Your task to perform on an android device: delete browsing data in the chrome app Image 0: 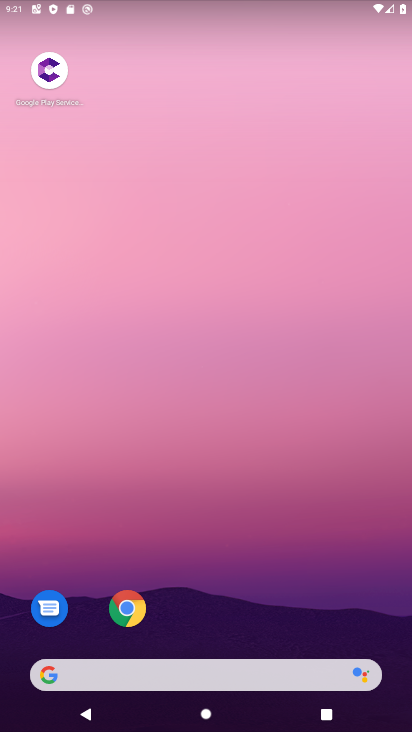
Step 0: click (131, 605)
Your task to perform on an android device: delete browsing data in the chrome app Image 1: 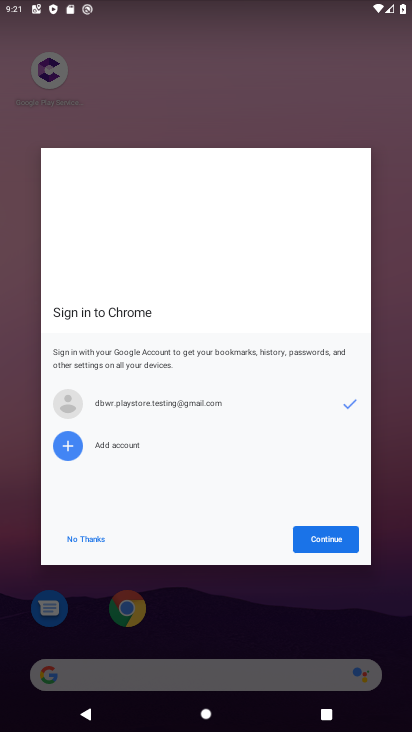
Step 1: click (325, 542)
Your task to perform on an android device: delete browsing data in the chrome app Image 2: 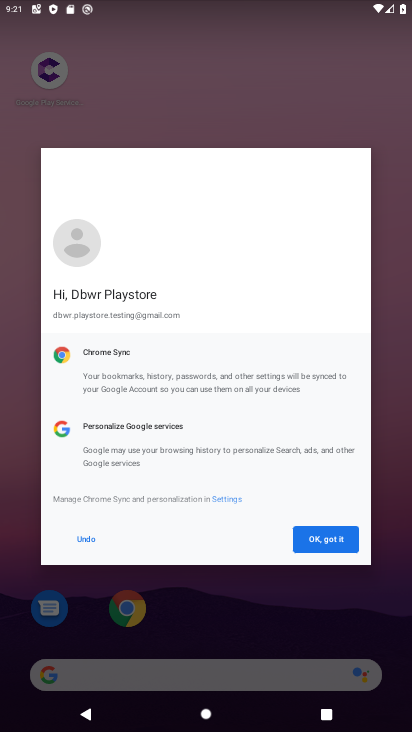
Step 2: click (325, 541)
Your task to perform on an android device: delete browsing data in the chrome app Image 3: 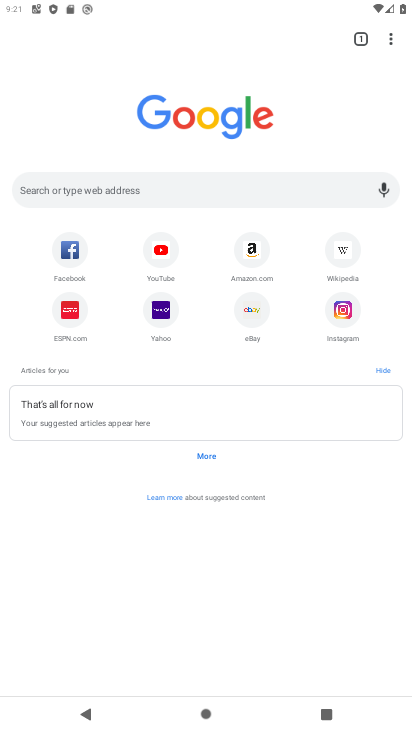
Step 3: click (154, 191)
Your task to perform on an android device: delete browsing data in the chrome app Image 4: 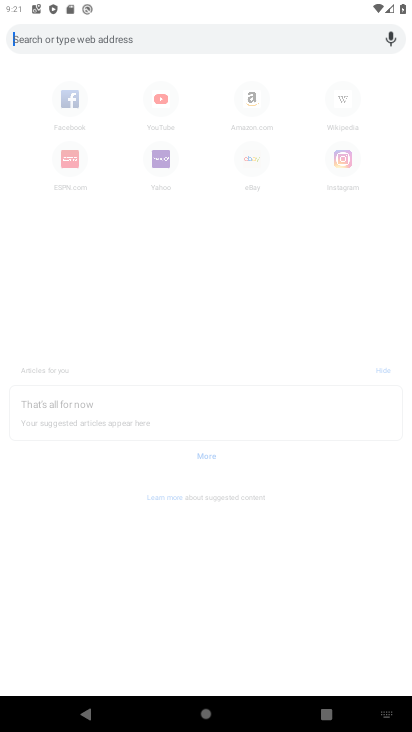
Step 4: click (122, 37)
Your task to perform on an android device: delete browsing data in the chrome app Image 5: 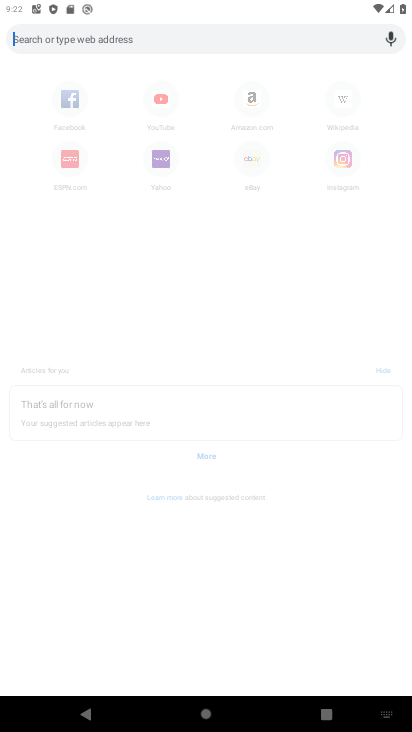
Step 5: press back button
Your task to perform on an android device: delete browsing data in the chrome app Image 6: 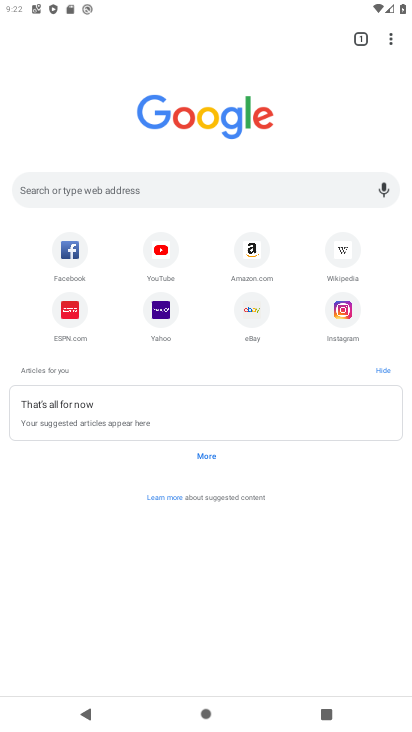
Step 6: click (389, 36)
Your task to perform on an android device: delete browsing data in the chrome app Image 7: 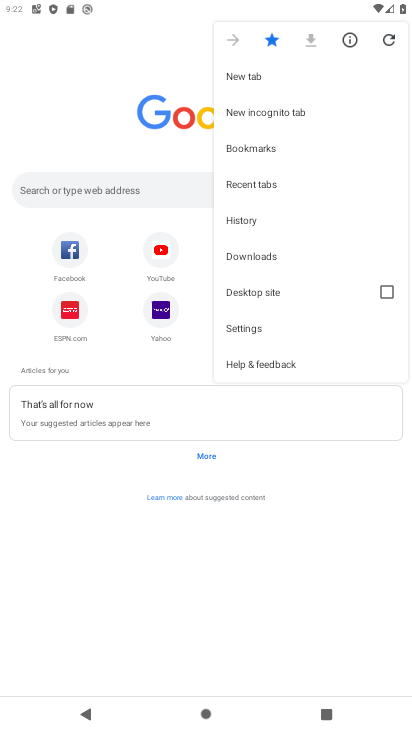
Step 7: click (240, 219)
Your task to perform on an android device: delete browsing data in the chrome app Image 8: 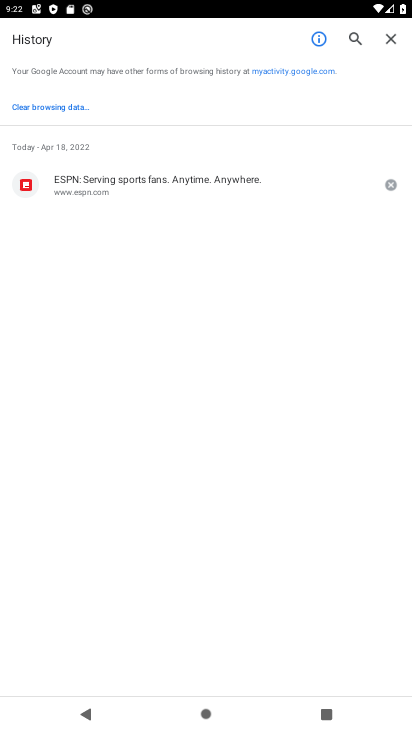
Step 8: click (60, 105)
Your task to perform on an android device: delete browsing data in the chrome app Image 9: 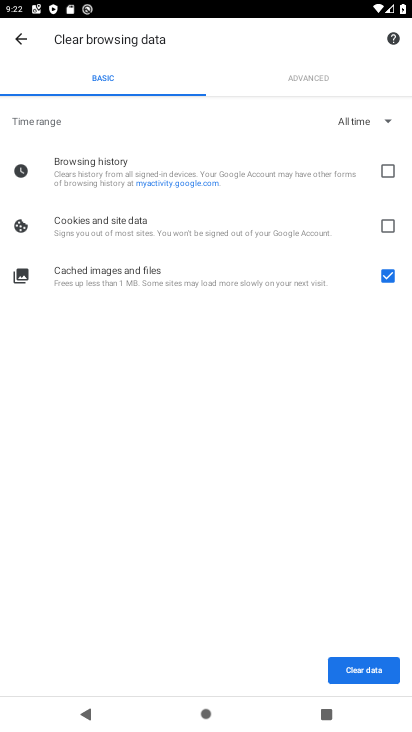
Step 9: click (388, 171)
Your task to perform on an android device: delete browsing data in the chrome app Image 10: 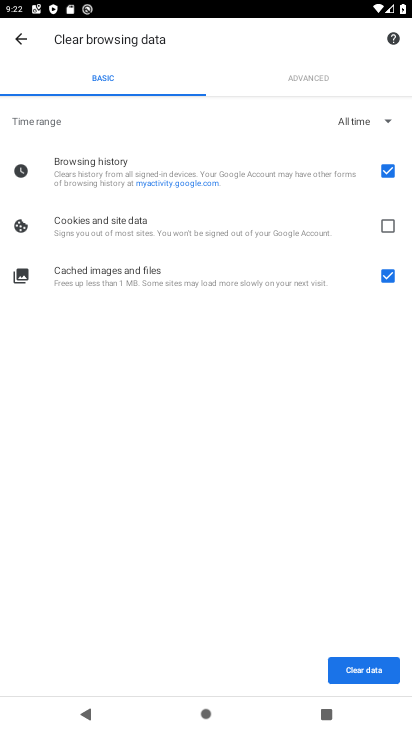
Step 10: click (389, 225)
Your task to perform on an android device: delete browsing data in the chrome app Image 11: 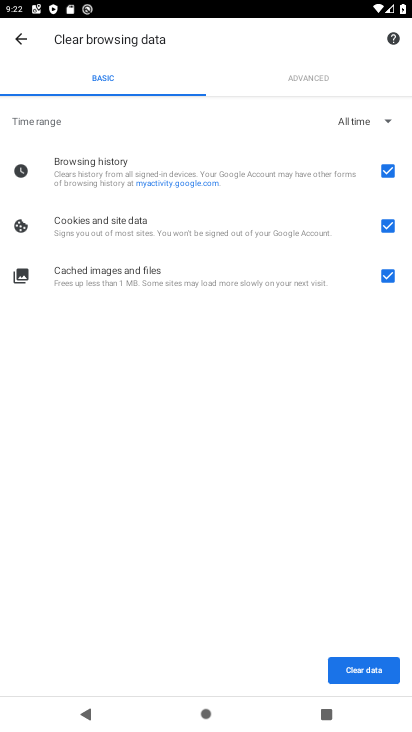
Step 11: click (366, 665)
Your task to perform on an android device: delete browsing data in the chrome app Image 12: 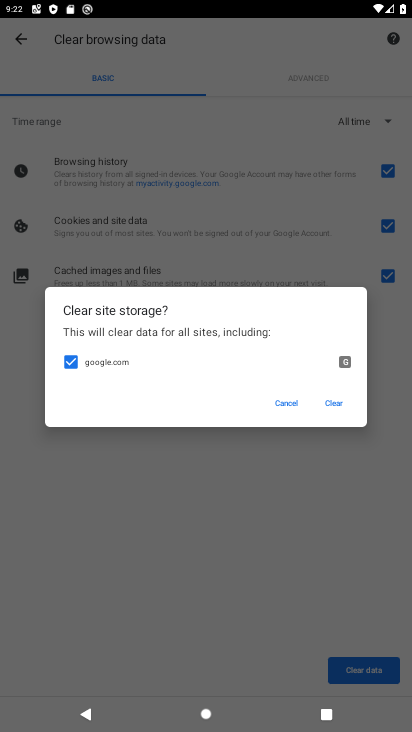
Step 12: click (326, 406)
Your task to perform on an android device: delete browsing data in the chrome app Image 13: 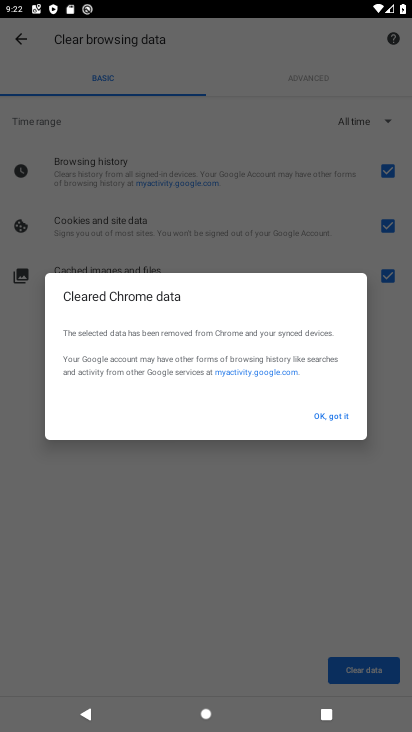
Step 13: click (328, 413)
Your task to perform on an android device: delete browsing data in the chrome app Image 14: 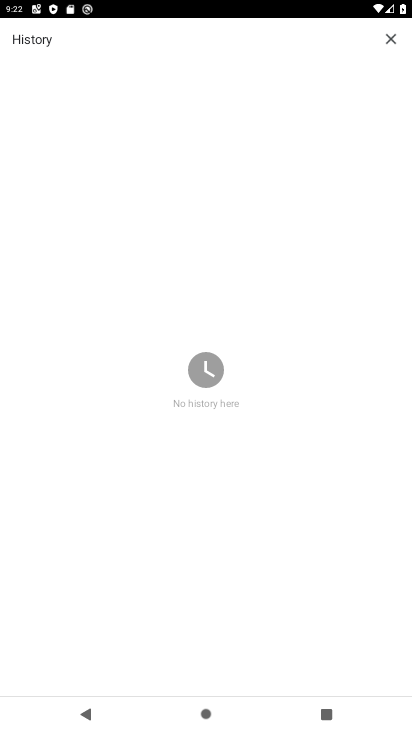
Step 14: task complete